Your task to perform on an android device: set the stopwatch Image 0: 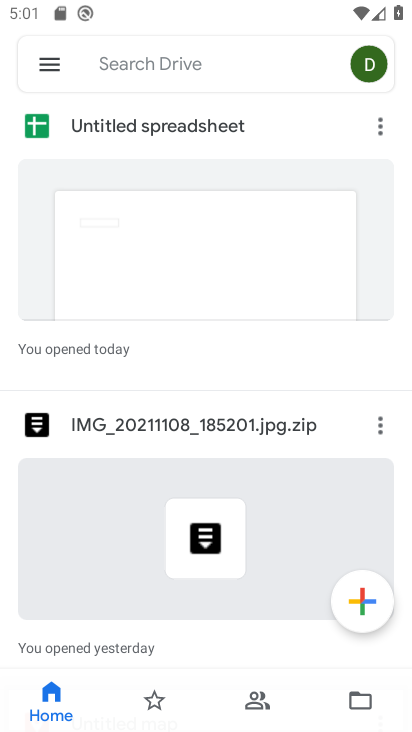
Step 0: press home button
Your task to perform on an android device: set the stopwatch Image 1: 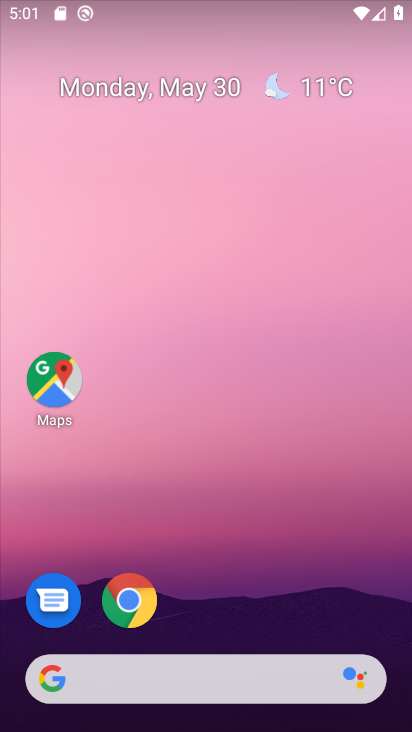
Step 1: drag from (286, 563) to (382, 82)
Your task to perform on an android device: set the stopwatch Image 2: 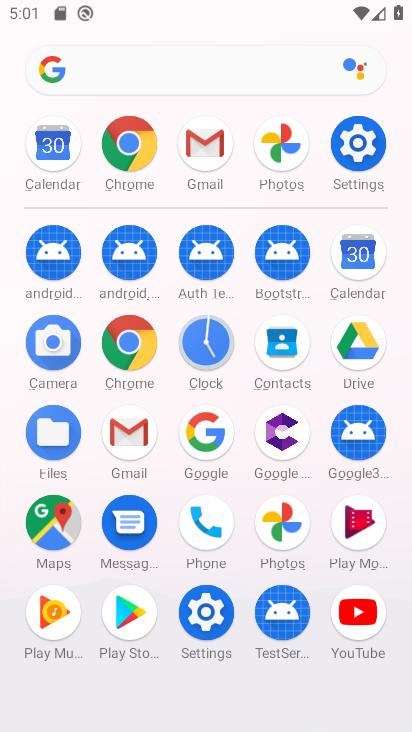
Step 2: click (204, 354)
Your task to perform on an android device: set the stopwatch Image 3: 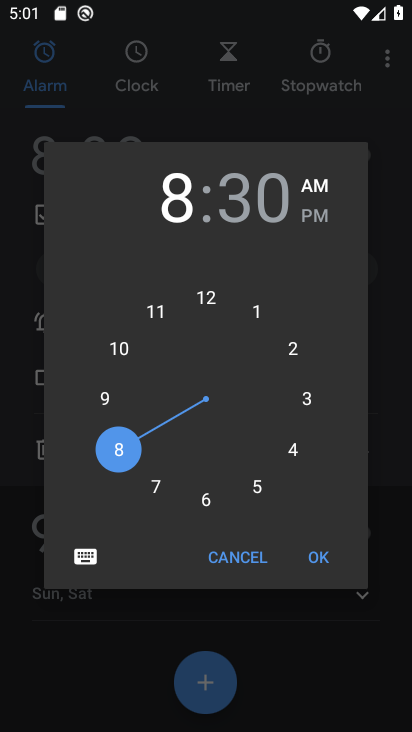
Step 3: click (255, 563)
Your task to perform on an android device: set the stopwatch Image 4: 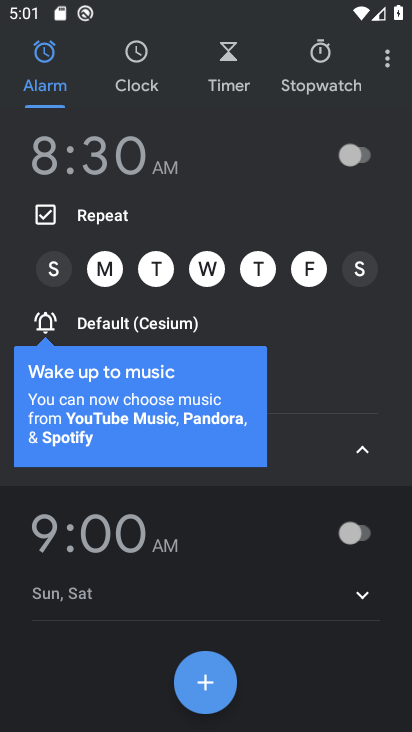
Step 4: click (307, 85)
Your task to perform on an android device: set the stopwatch Image 5: 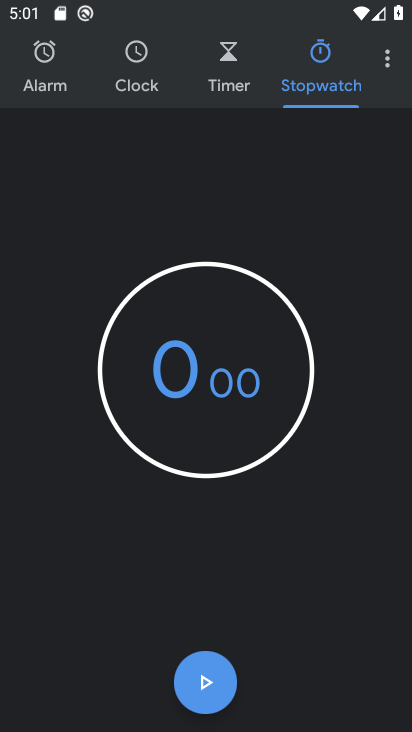
Step 5: task complete